Your task to perform on an android device: Open wifi settings Image 0: 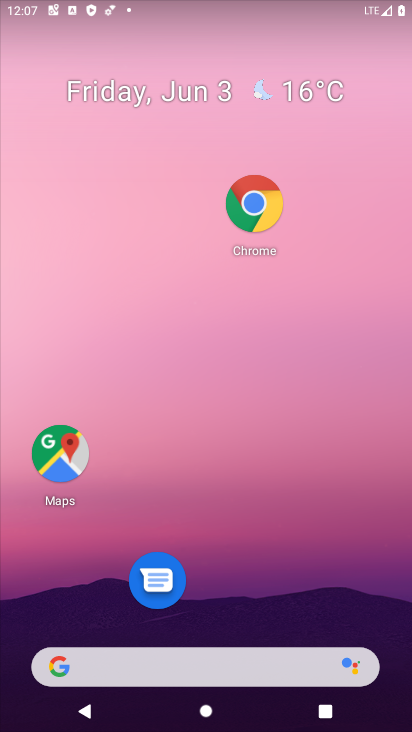
Step 0: drag from (246, 510) to (301, 212)
Your task to perform on an android device: Open wifi settings Image 1: 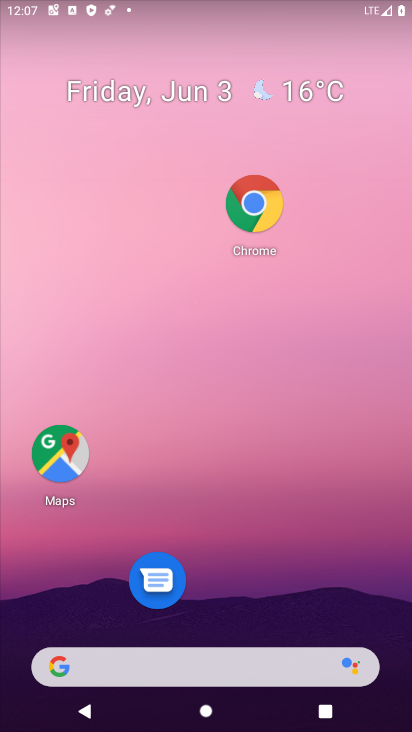
Step 1: drag from (290, 566) to (315, 182)
Your task to perform on an android device: Open wifi settings Image 2: 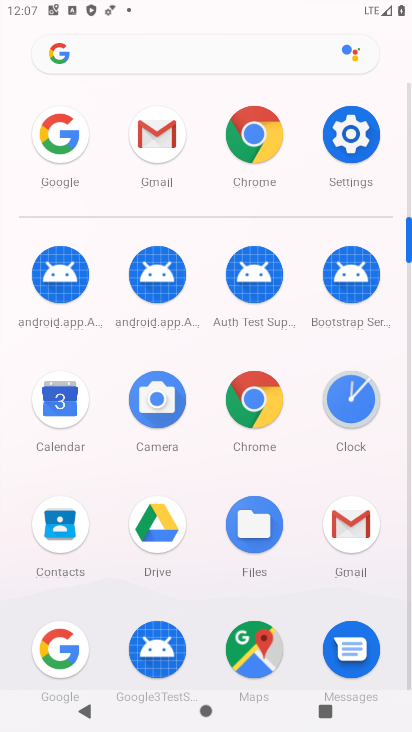
Step 2: click (357, 151)
Your task to perform on an android device: Open wifi settings Image 3: 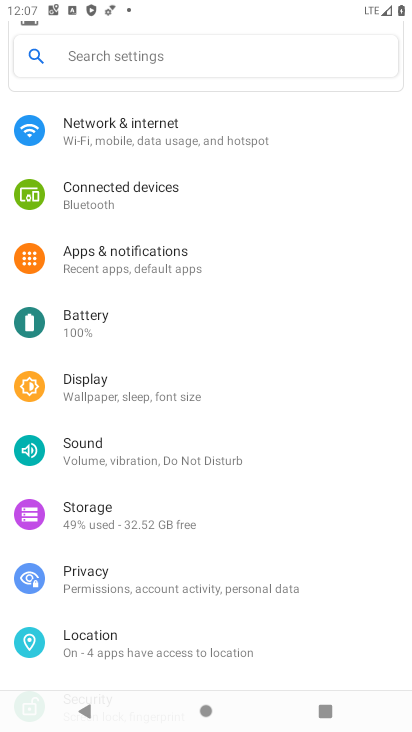
Step 3: drag from (208, 327) to (207, 523)
Your task to perform on an android device: Open wifi settings Image 4: 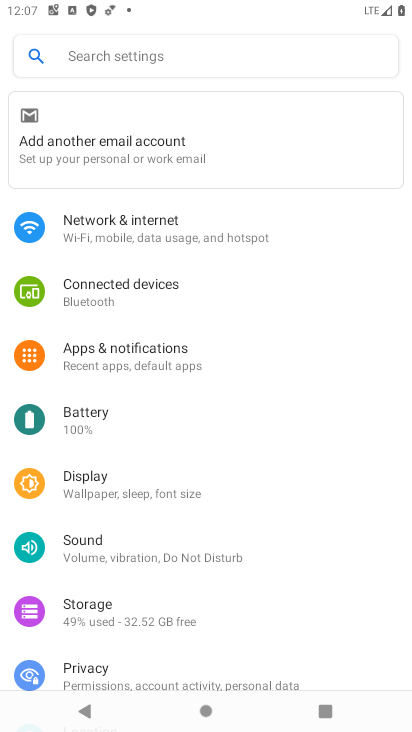
Step 4: click (190, 223)
Your task to perform on an android device: Open wifi settings Image 5: 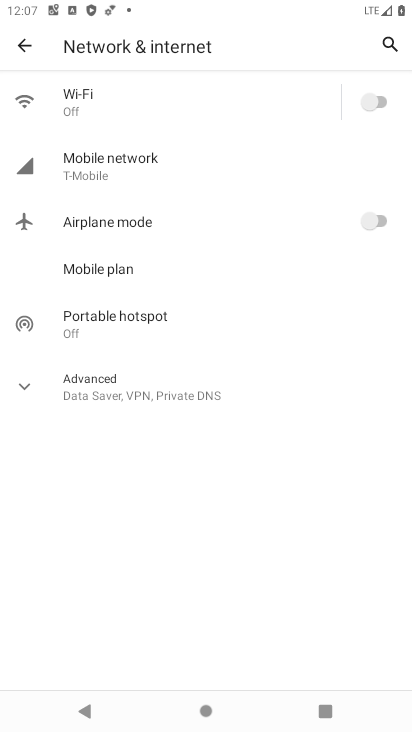
Step 5: click (207, 110)
Your task to perform on an android device: Open wifi settings Image 6: 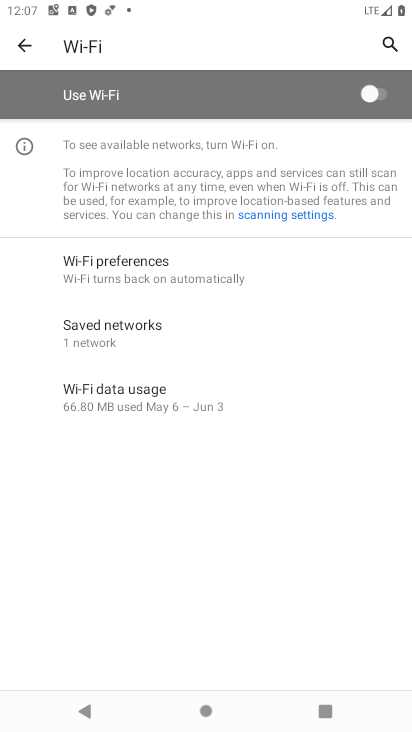
Step 6: task complete